Your task to perform on an android device: Open Wikipedia Image 0: 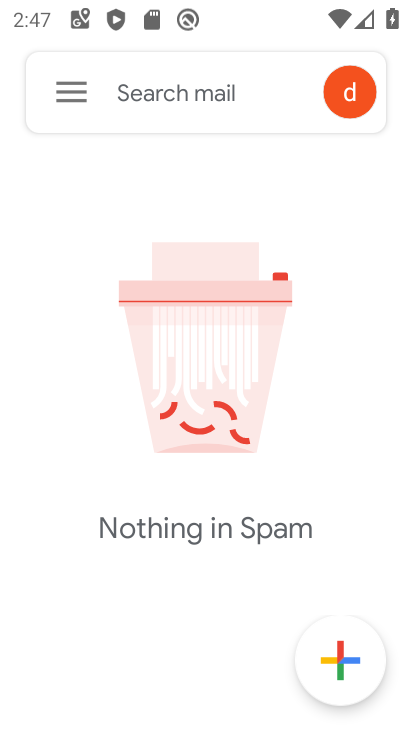
Step 0: press home button
Your task to perform on an android device: Open Wikipedia Image 1: 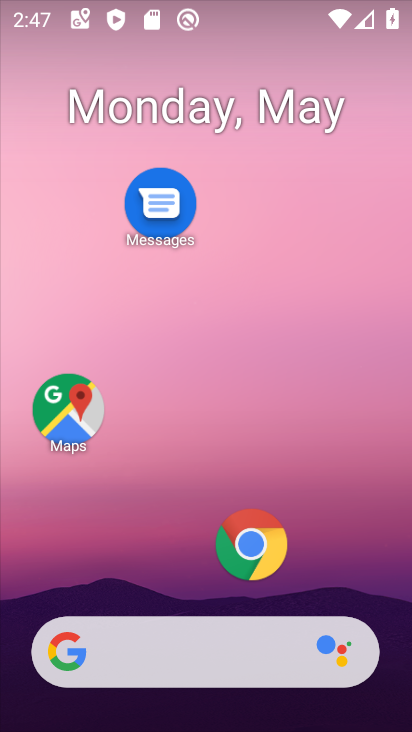
Step 1: click (191, 577)
Your task to perform on an android device: Open Wikipedia Image 2: 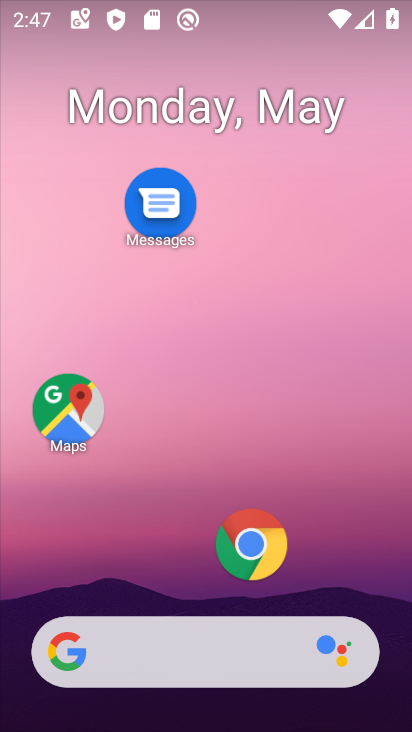
Step 2: click (238, 541)
Your task to perform on an android device: Open Wikipedia Image 3: 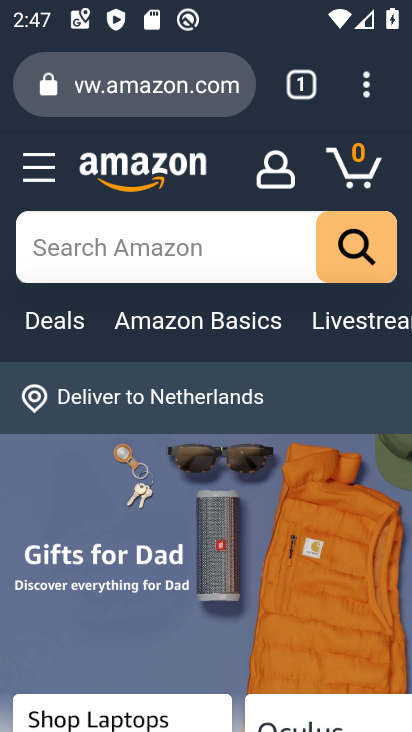
Step 3: click (288, 85)
Your task to perform on an android device: Open Wikipedia Image 4: 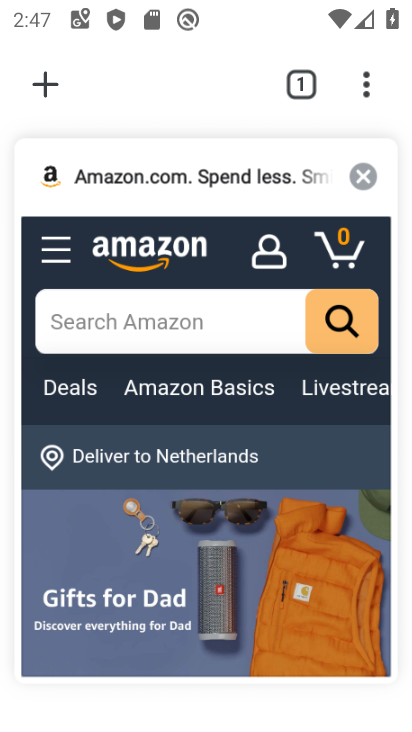
Step 4: click (38, 77)
Your task to perform on an android device: Open Wikipedia Image 5: 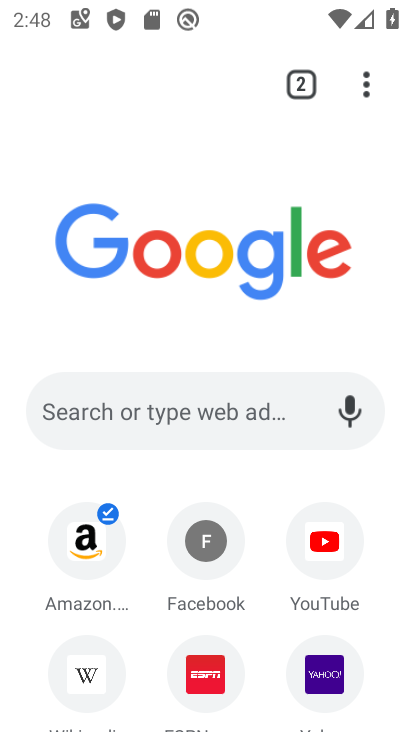
Step 5: click (105, 675)
Your task to perform on an android device: Open Wikipedia Image 6: 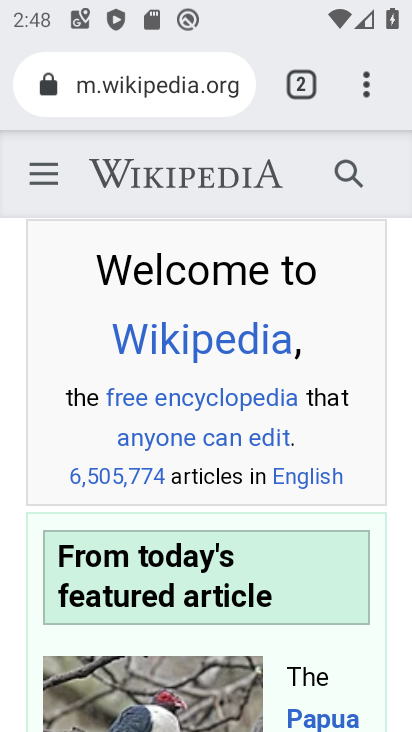
Step 6: task complete